Your task to perform on an android device: turn on data saver in the chrome app Image 0: 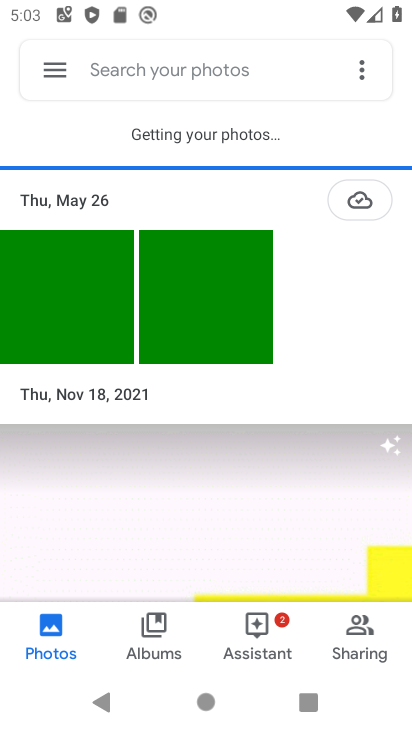
Step 0: press home button
Your task to perform on an android device: turn on data saver in the chrome app Image 1: 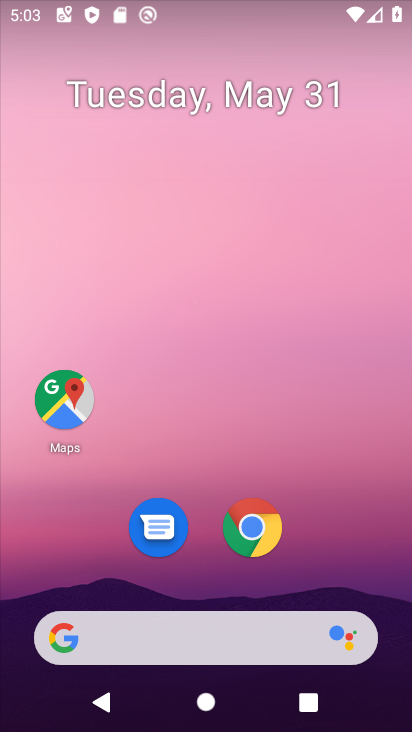
Step 1: drag from (277, 551) to (321, 119)
Your task to perform on an android device: turn on data saver in the chrome app Image 2: 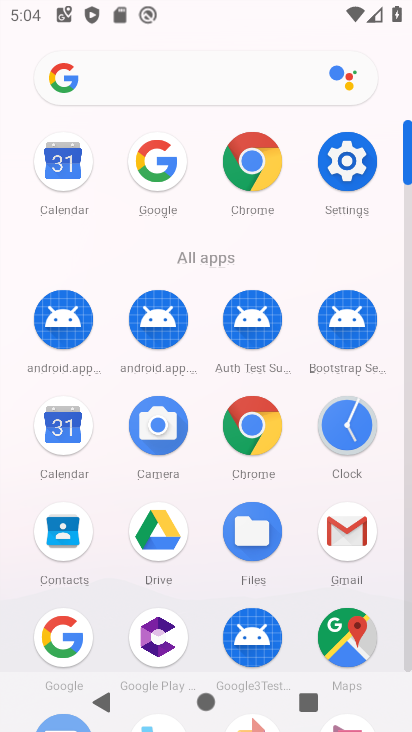
Step 2: click (265, 434)
Your task to perform on an android device: turn on data saver in the chrome app Image 3: 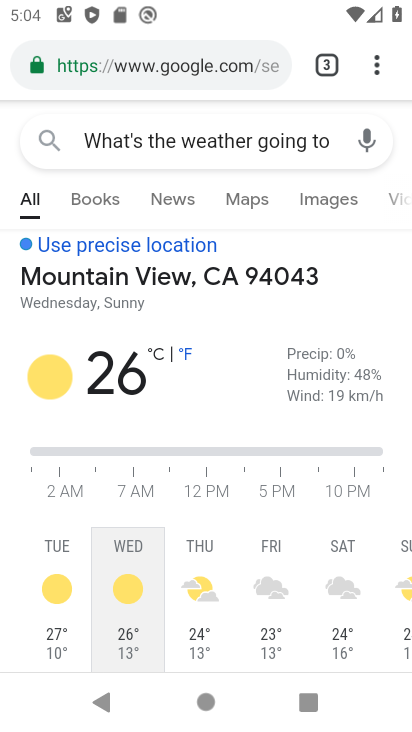
Step 3: drag from (376, 59) to (163, 576)
Your task to perform on an android device: turn on data saver in the chrome app Image 4: 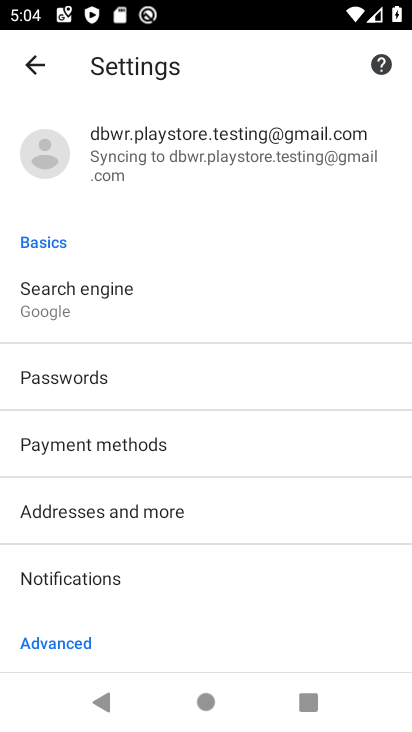
Step 4: drag from (293, 654) to (294, 347)
Your task to perform on an android device: turn on data saver in the chrome app Image 5: 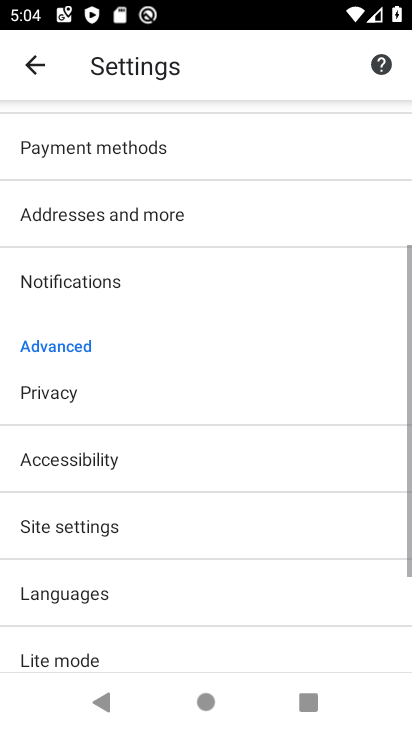
Step 5: drag from (217, 614) to (247, 379)
Your task to perform on an android device: turn on data saver in the chrome app Image 6: 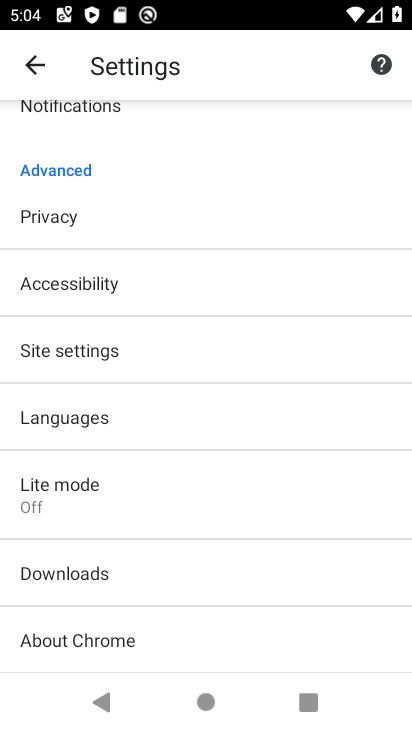
Step 6: click (44, 499)
Your task to perform on an android device: turn on data saver in the chrome app Image 7: 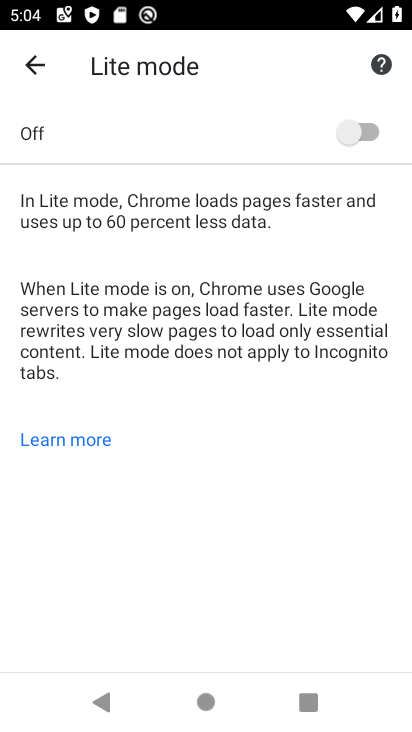
Step 7: click (371, 130)
Your task to perform on an android device: turn on data saver in the chrome app Image 8: 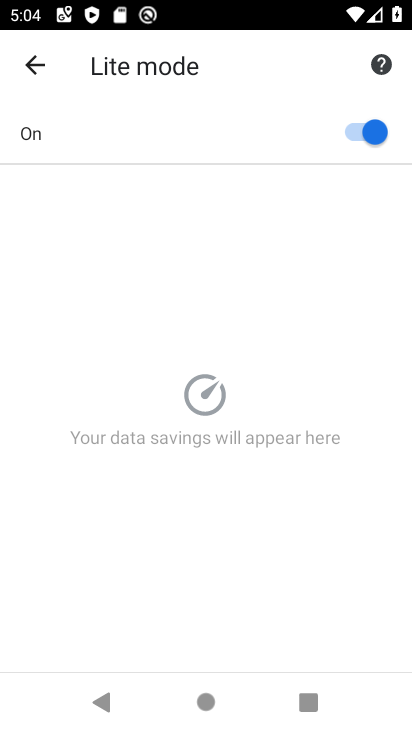
Step 8: task complete